Your task to perform on an android device: Go to sound settings Image 0: 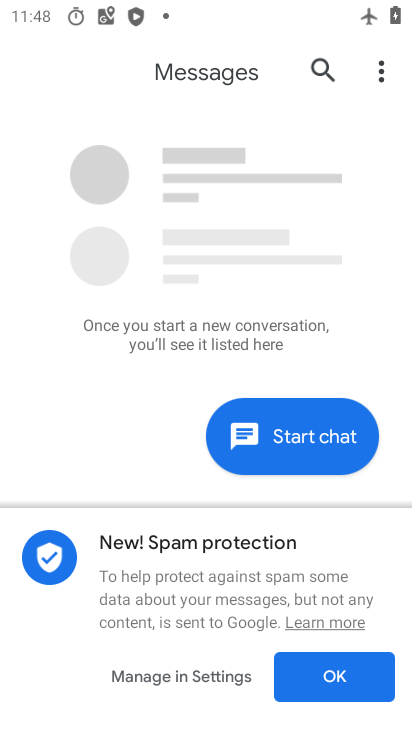
Step 0: press home button
Your task to perform on an android device: Go to sound settings Image 1: 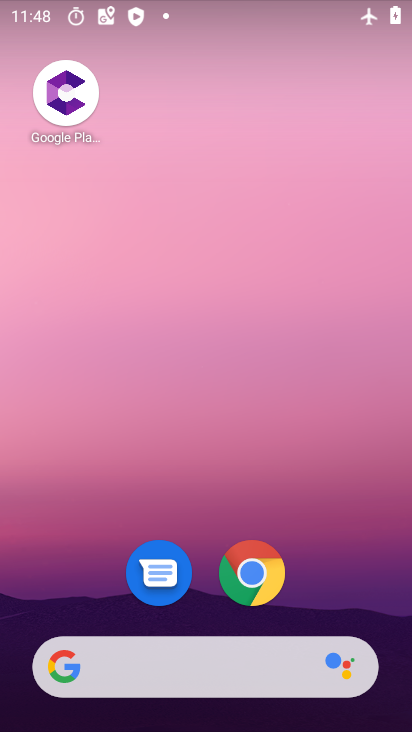
Step 1: drag from (191, 711) to (286, 213)
Your task to perform on an android device: Go to sound settings Image 2: 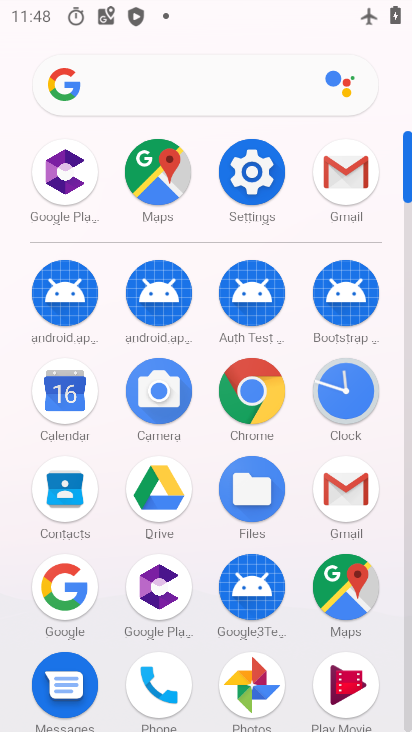
Step 2: click (248, 123)
Your task to perform on an android device: Go to sound settings Image 3: 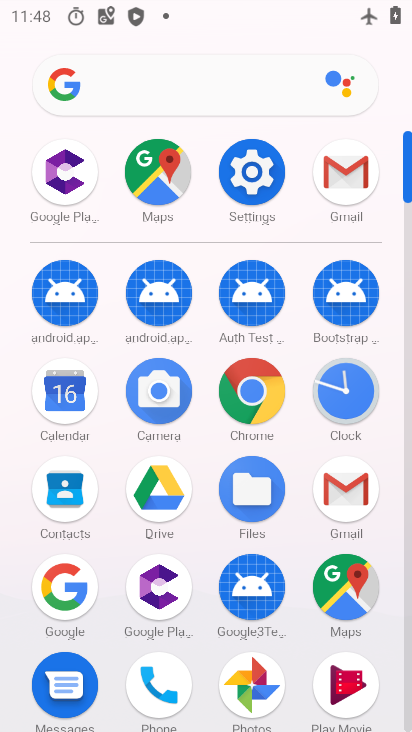
Step 3: click (238, 192)
Your task to perform on an android device: Go to sound settings Image 4: 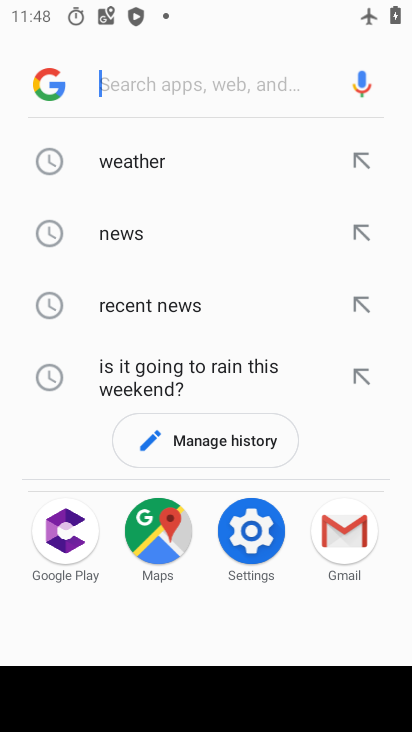
Step 4: press home button
Your task to perform on an android device: Go to sound settings Image 5: 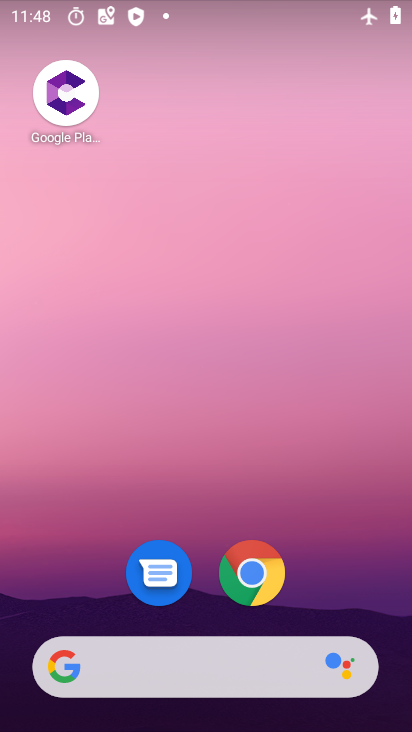
Step 5: drag from (185, 710) to (239, 52)
Your task to perform on an android device: Go to sound settings Image 6: 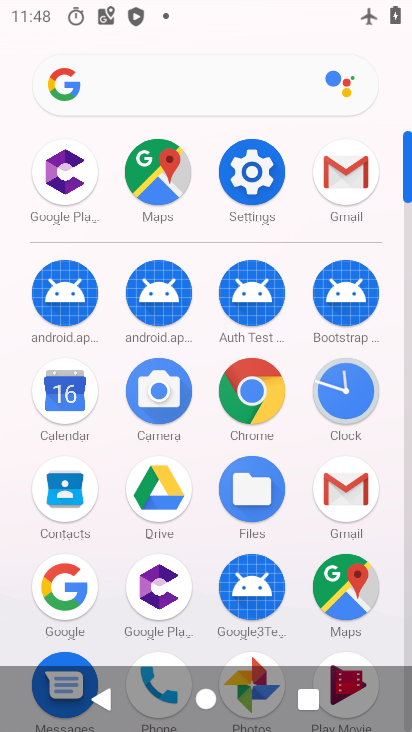
Step 6: click (260, 159)
Your task to perform on an android device: Go to sound settings Image 7: 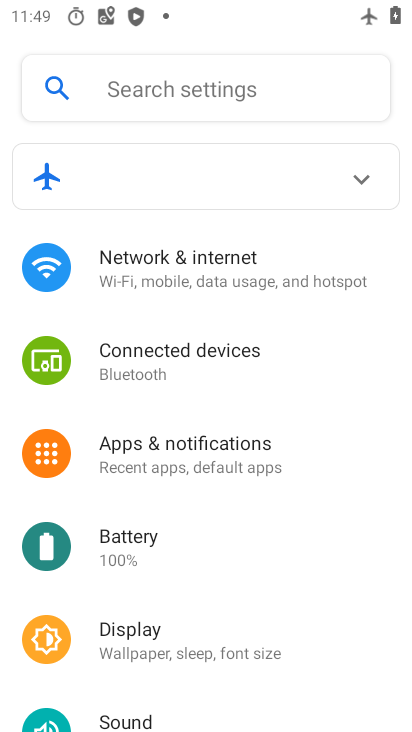
Step 7: click (150, 722)
Your task to perform on an android device: Go to sound settings Image 8: 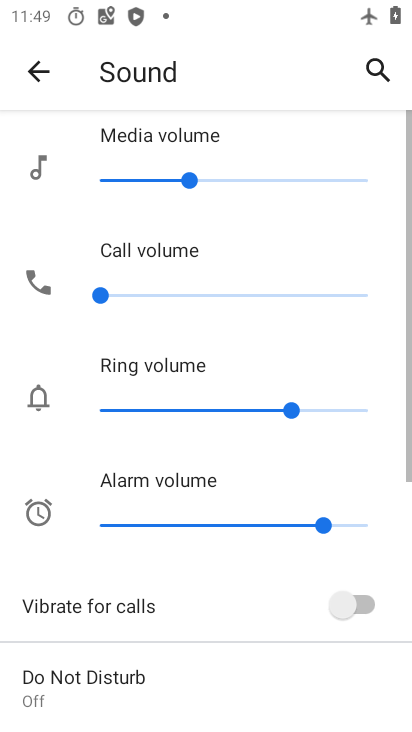
Step 8: task complete